Your task to perform on an android device: turn off airplane mode Image 0: 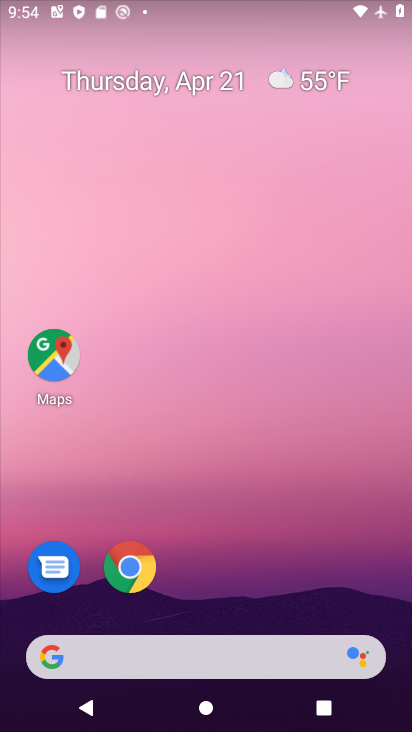
Step 0: drag from (351, 560) to (241, 25)
Your task to perform on an android device: turn off airplane mode Image 1: 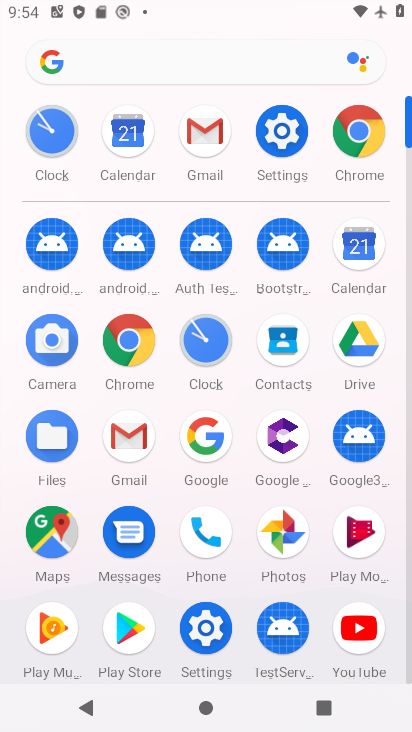
Step 1: click (205, 627)
Your task to perform on an android device: turn off airplane mode Image 2: 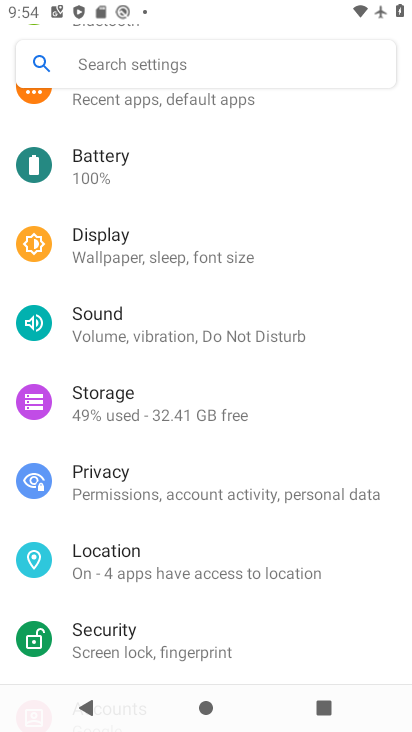
Step 2: drag from (313, 127) to (395, 473)
Your task to perform on an android device: turn off airplane mode Image 3: 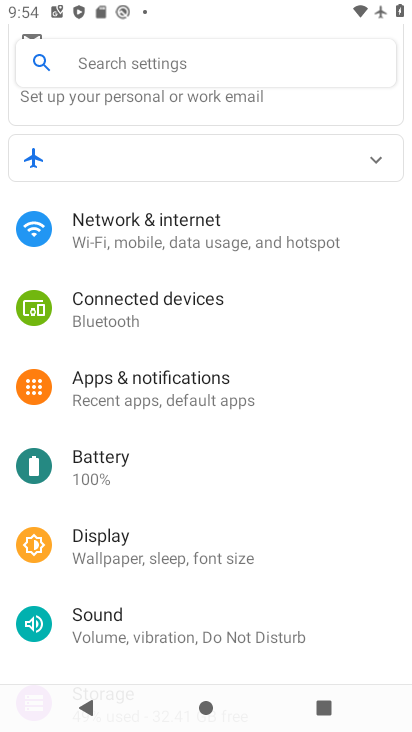
Step 3: click (119, 231)
Your task to perform on an android device: turn off airplane mode Image 4: 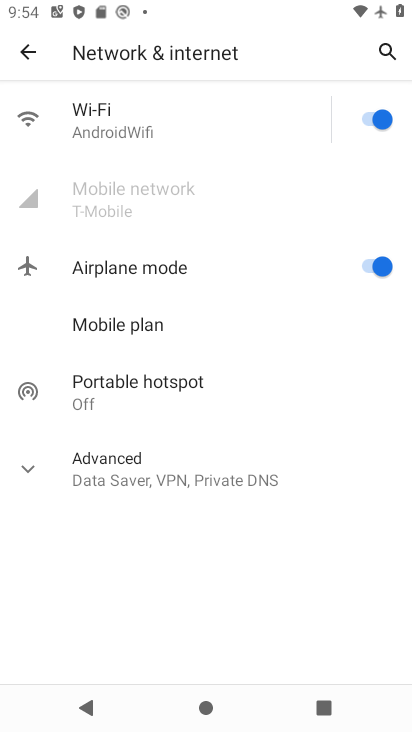
Step 4: click (364, 260)
Your task to perform on an android device: turn off airplane mode Image 5: 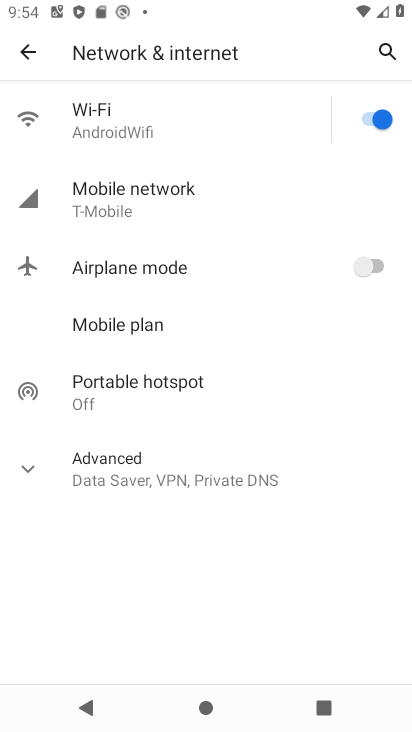
Step 5: task complete